Your task to perform on an android device: Search for logitech g502 on bestbuy.com, select the first entry, and add it to the cart. Image 0: 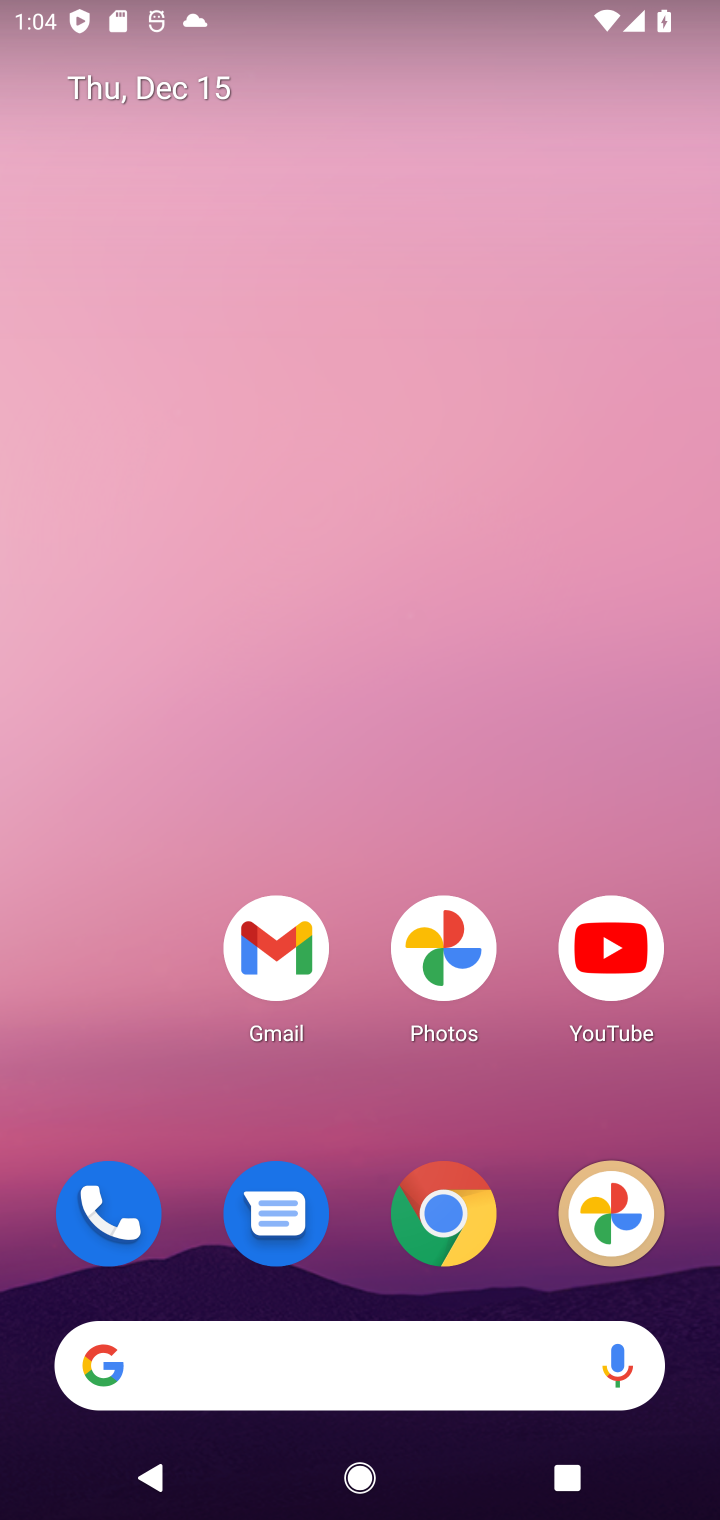
Step 0: click (444, 1211)
Your task to perform on an android device: Search for logitech g502 on bestbuy.com, select the first entry, and add it to the cart. Image 1: 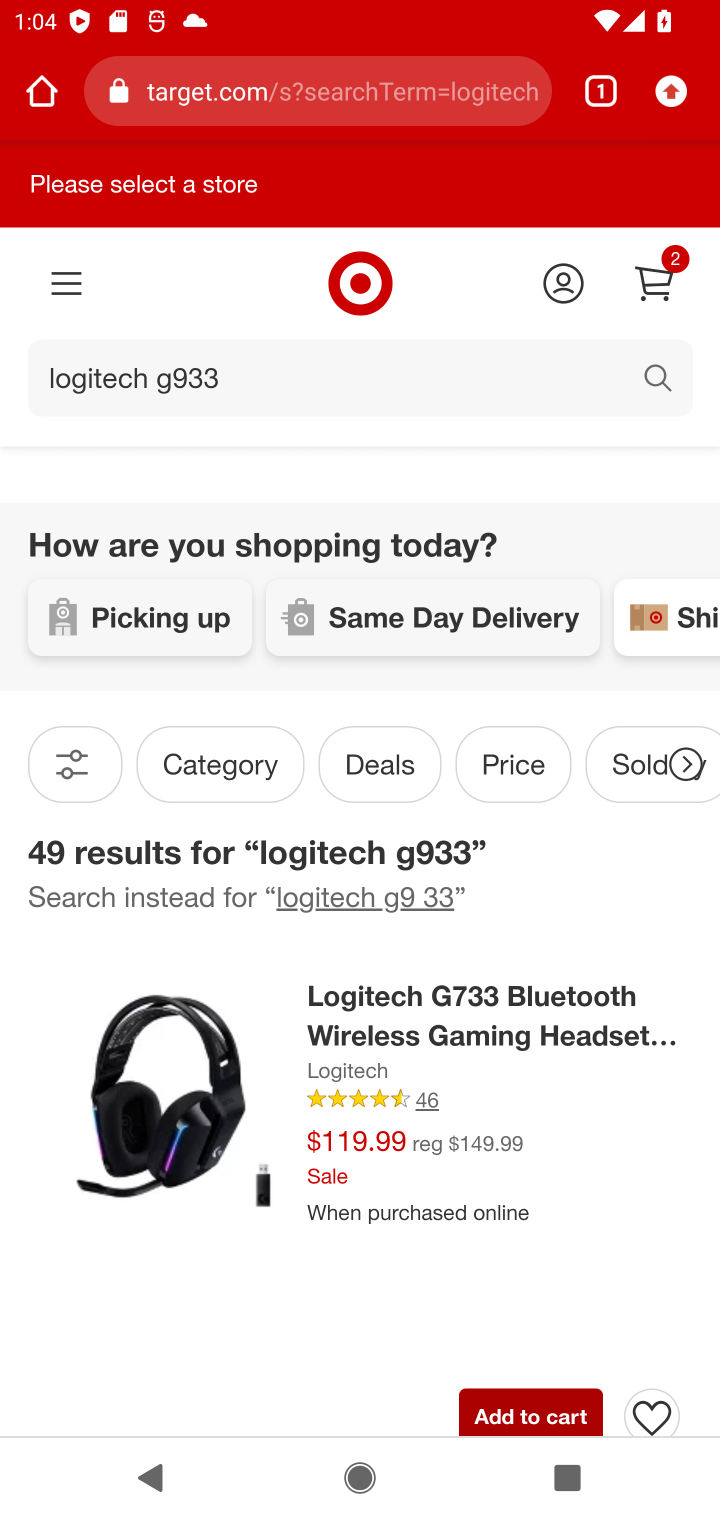
Step 1: click (503, 1395)
Your task to perform on an android device: Search for logitech g502 on bestbuy.com, select the first entry, and add it to the cart. Image 2: 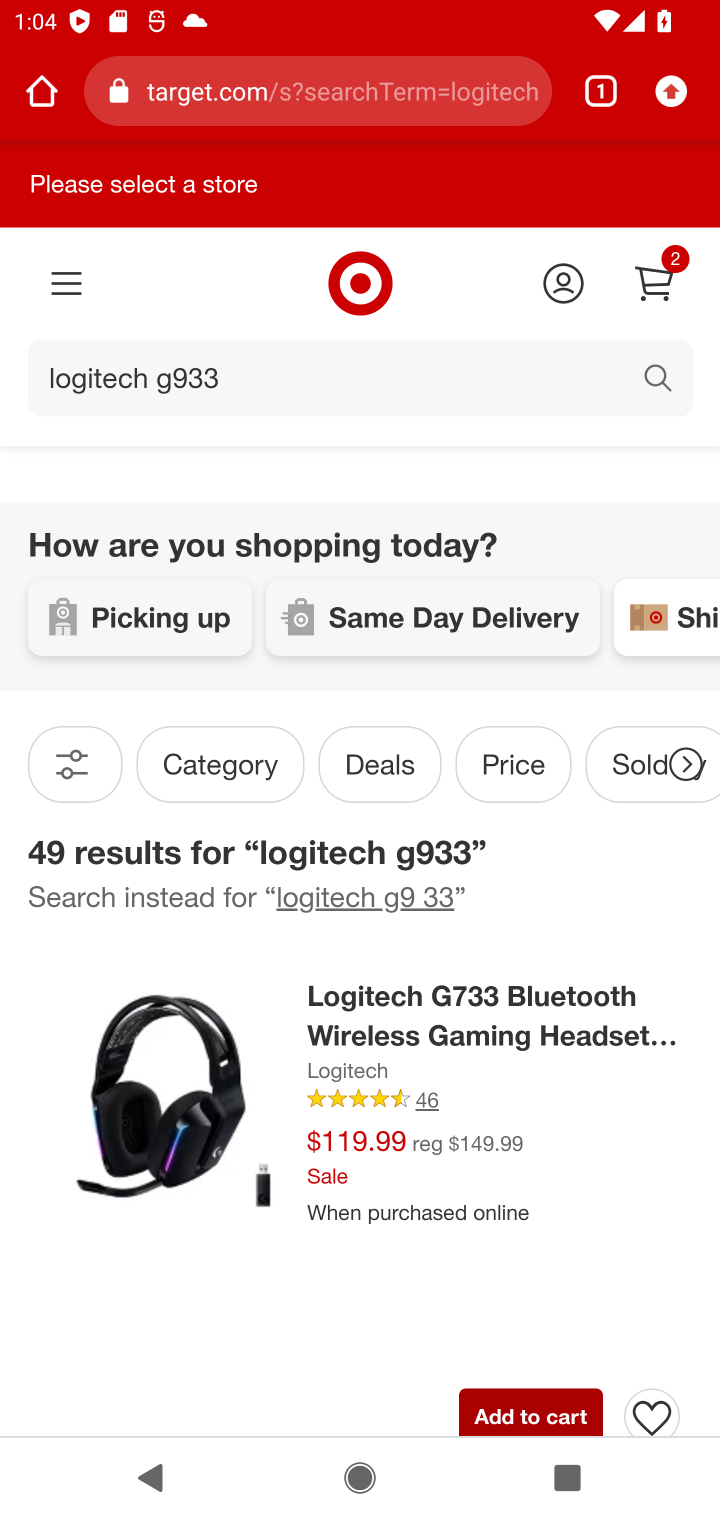
Step 2: task complete